Your task to perform on an android device: check data usage Image 0: 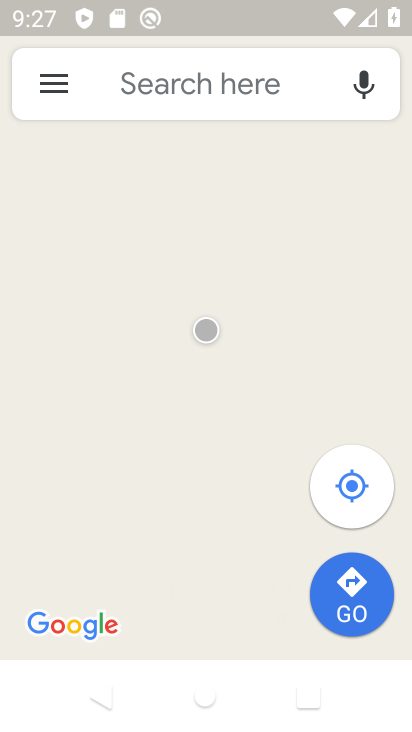
Step 0: press back button
Your task to perform on an android device: check data usage Image 1: 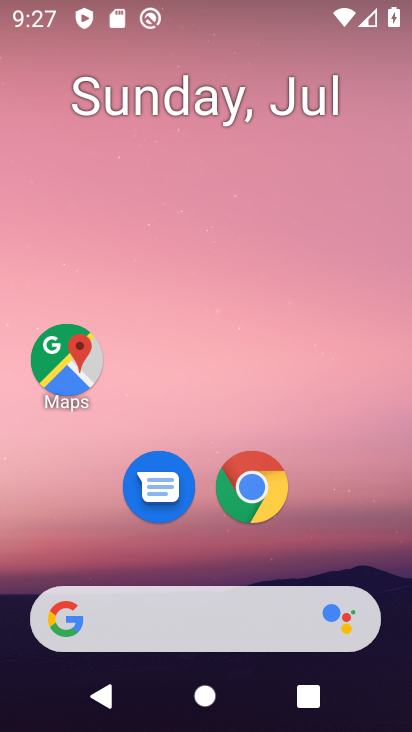
Step 1: drag from (194, 569) to (247, 1)
Your task to perform on an android device: check data usage Image 2: 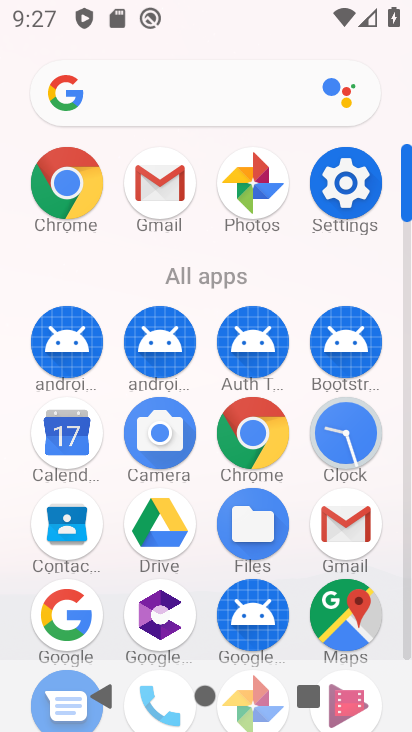
Step 2: click (350, 175)
Your task to perform on an android device: check data usage Image 3: 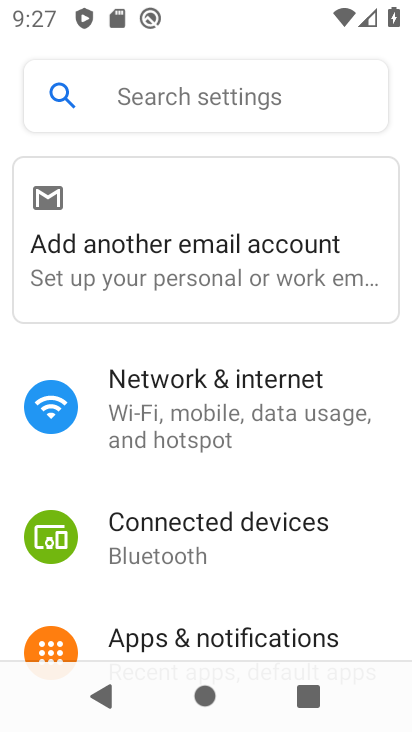
Step 3: click (228, 419)
Your task to perform on an android device: check data usage Image 4: 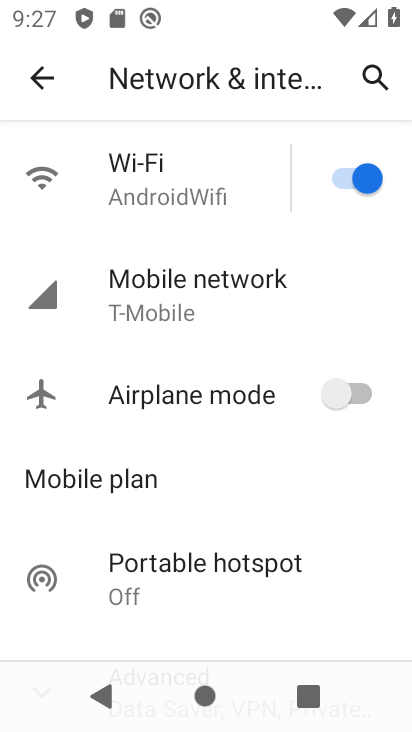
Step 4: drag from (186, 592) to (224, 162)
Your task to perform on an android device: check data usage Image 5: 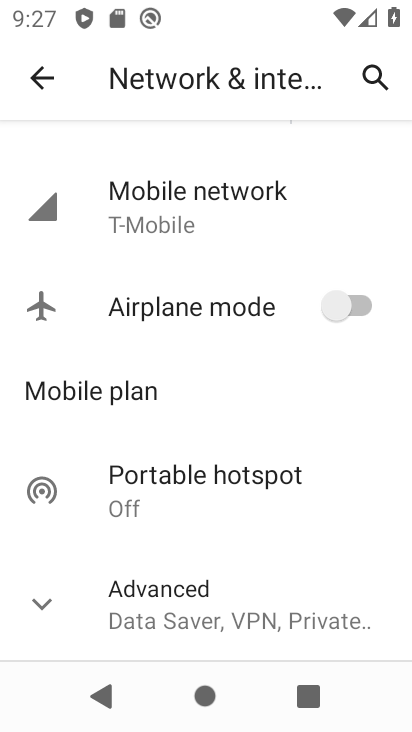
Step 5: click (144, 600)
Your task to perform on an android device: check data usage Image 6: 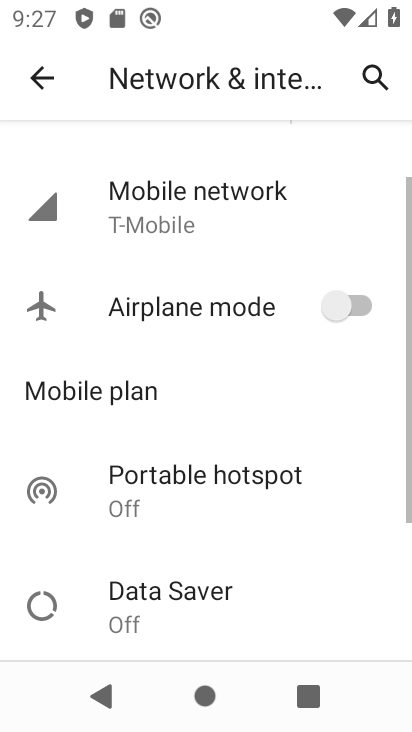
Step 6: drag from (160, 611) to (220, 232)
Your task to perform on an android device: check data usage Image 7: 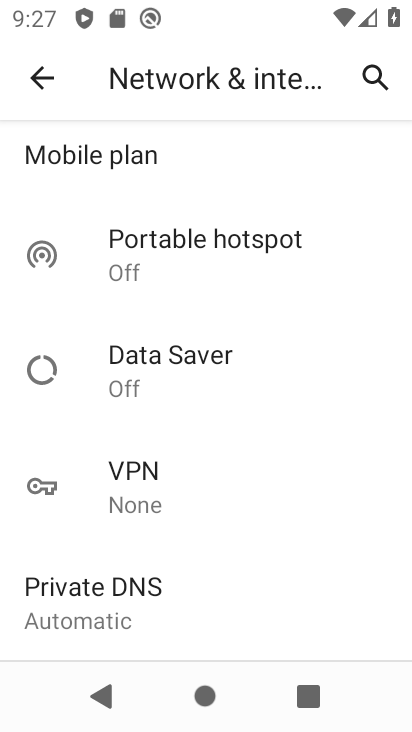
Step 7: drag from (227, 248) to (216, 730)
Your task to perform on an android device: check data usage Image 8: 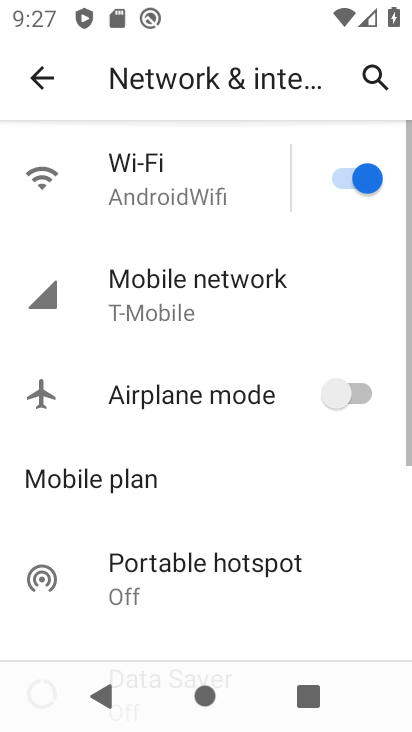
Step 8: click (184, 280)
Your task to perform on an android device: check data usage Image 9: 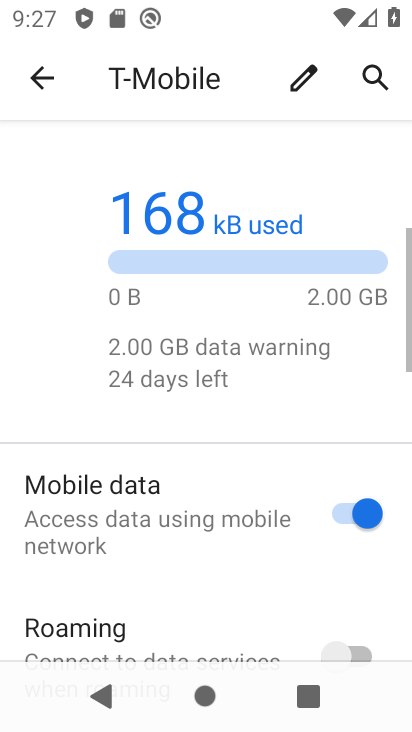
Step 9: drag from (154, 627) to (226, 153)
Your task to perform on an android device: check data usage Image 10: 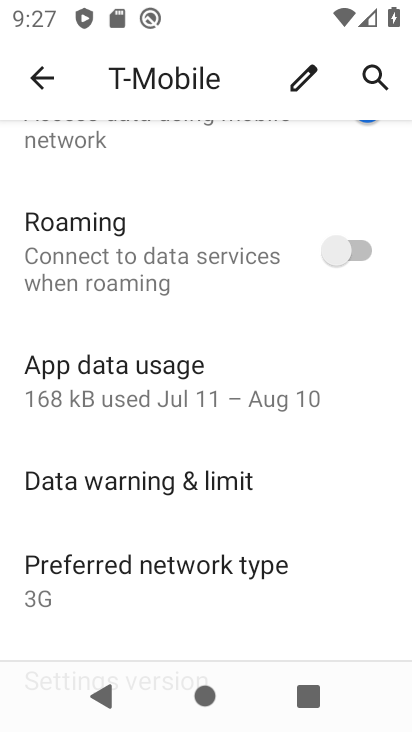
Step 10: click (129, 371)
Your task to perform on an android device: check data usage Image 11: 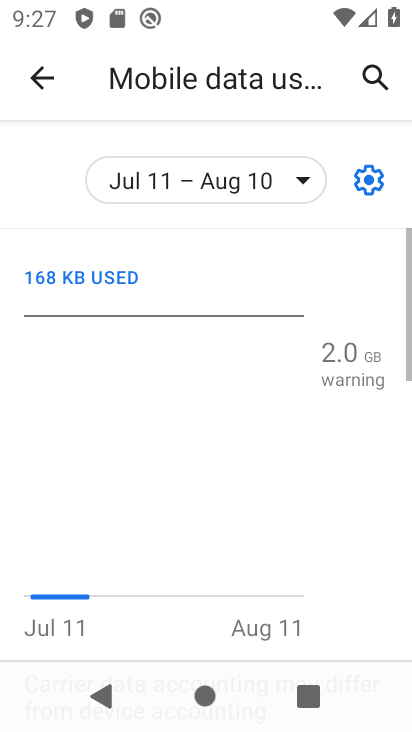
Step 11: task complete